Your task to perform on an android device: make emails show in primary in the gmail app Image 0: 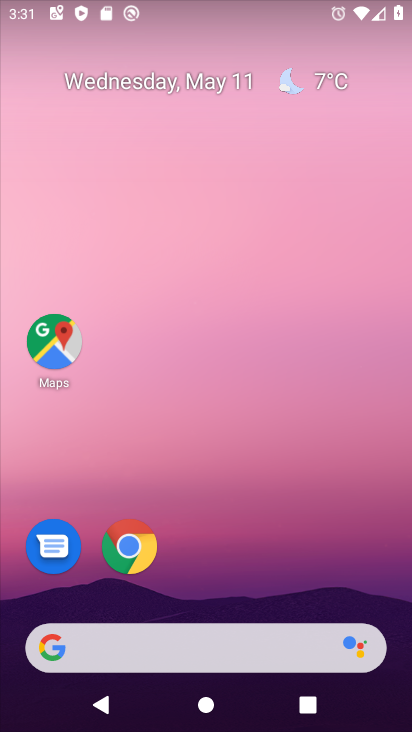
Step 0: drag from (281, 622) to (303, 12)
Your task to perform on an android device: make emails show in primary in the gmail app Image 1: 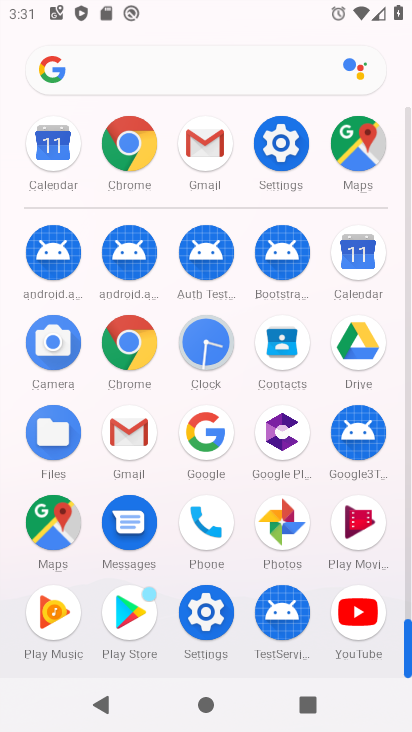
Step 1: click (142, 443)
Your task to perform on an android device: make emails show in primary in the gmail app Image 2: 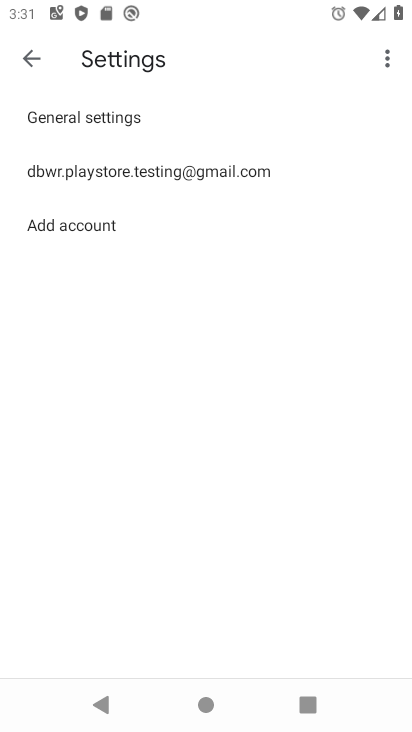
Step 2: press back button
Your task to perform on an android device: make emails show in primary in the gmail app Image 3: 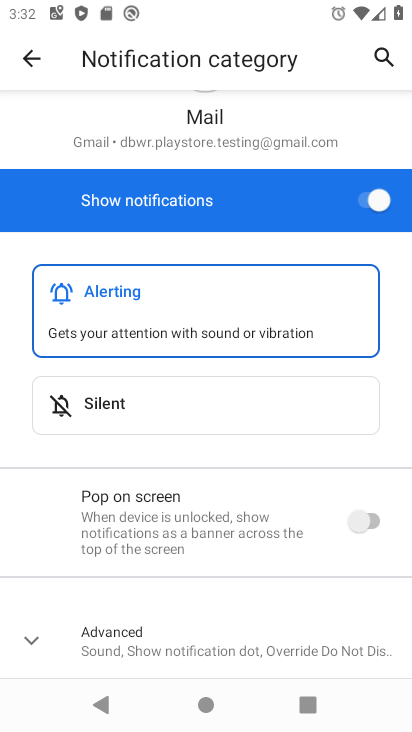
Step 3: press back button
Your task to perform on an android device: make emails show in primary in the gmail app Image 4: 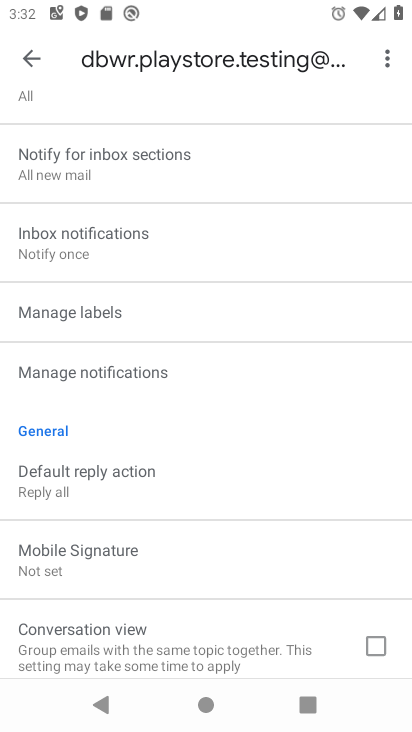
Step 4: press back button
Your task to perform on an android device: make emails show in primary in the gmail app Image 5: 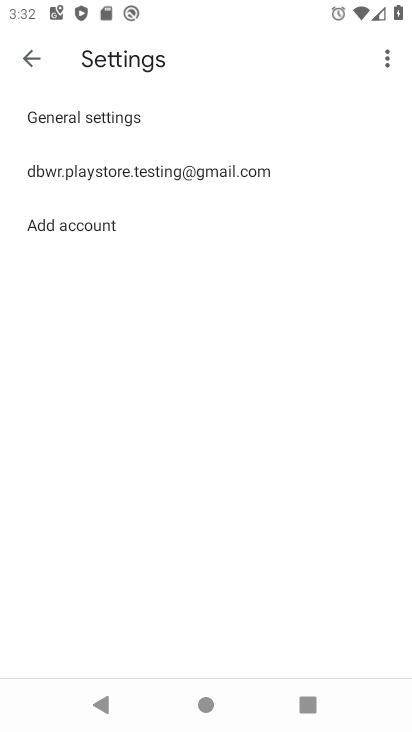
Step 5: press back button
Your task to perform on an android device: make emails show in primary in the gmail app Image 6: 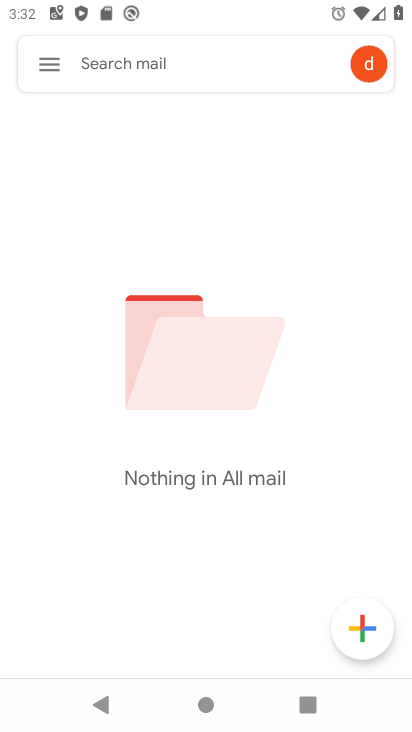
Step 6: click (35, 69)
Your task to perform on an android device: make emails show in primary in the gmail app Image 7: 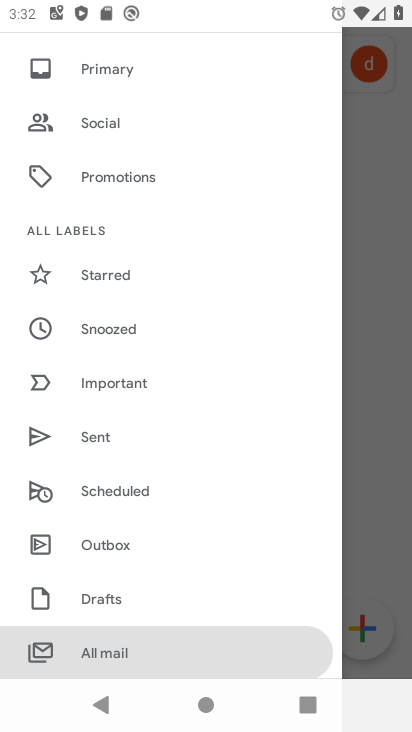
Step 7: click (110, 66)
Your task to perform on an android device: make emails show in primary in the gmail app Image 8: 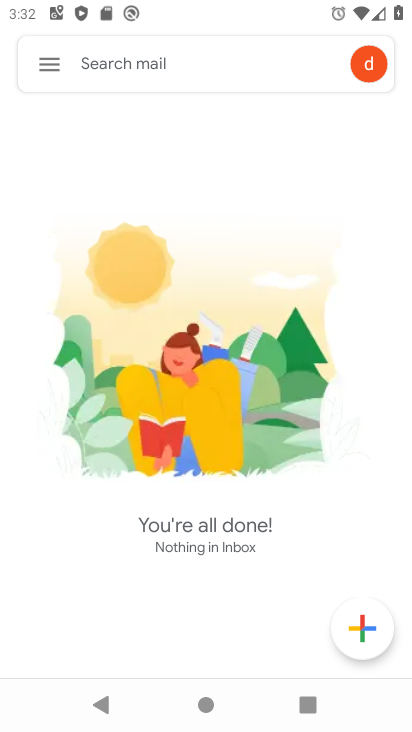
Step 8: task complete